Your task to perform on an android device: Open the map Image 0: 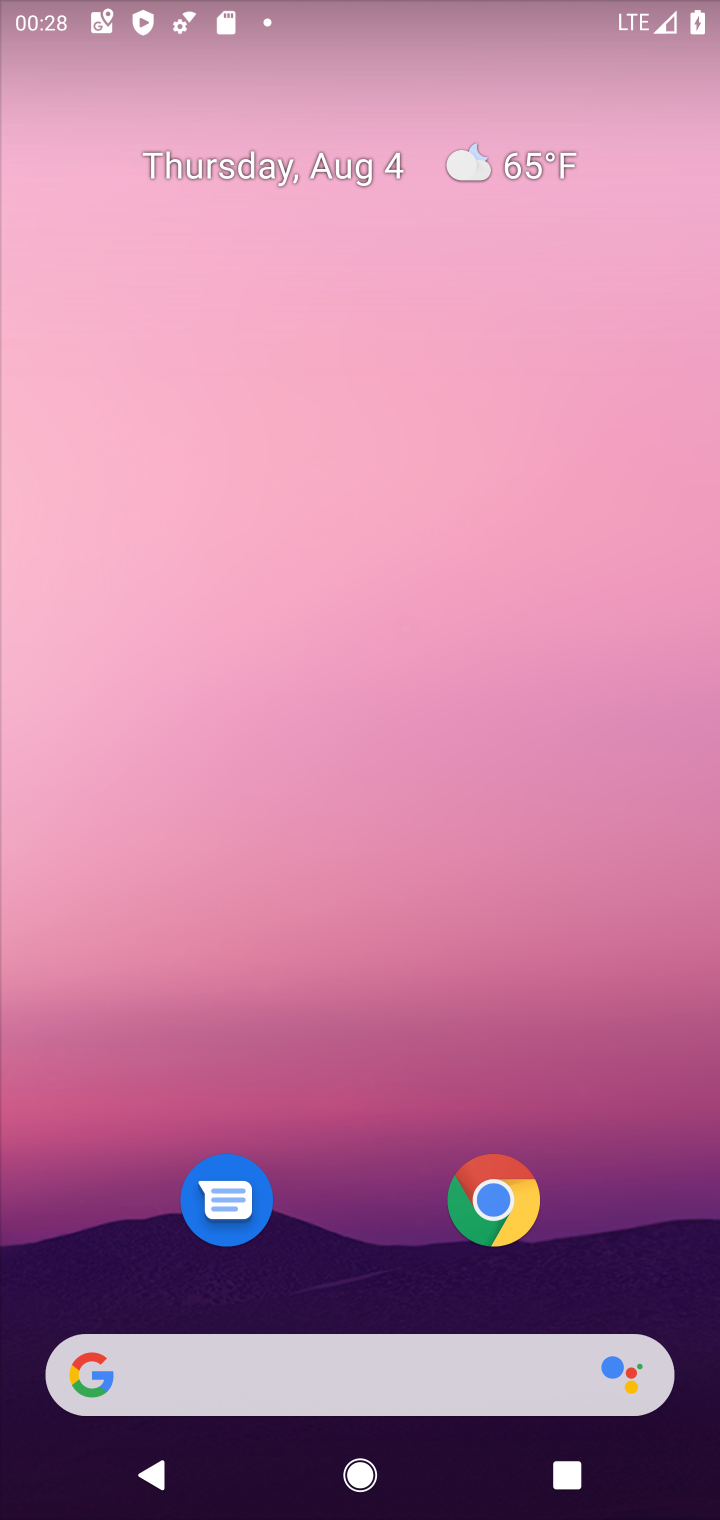
Step 0: press home button
Your task to perform on an android device: Open the map Image 1: 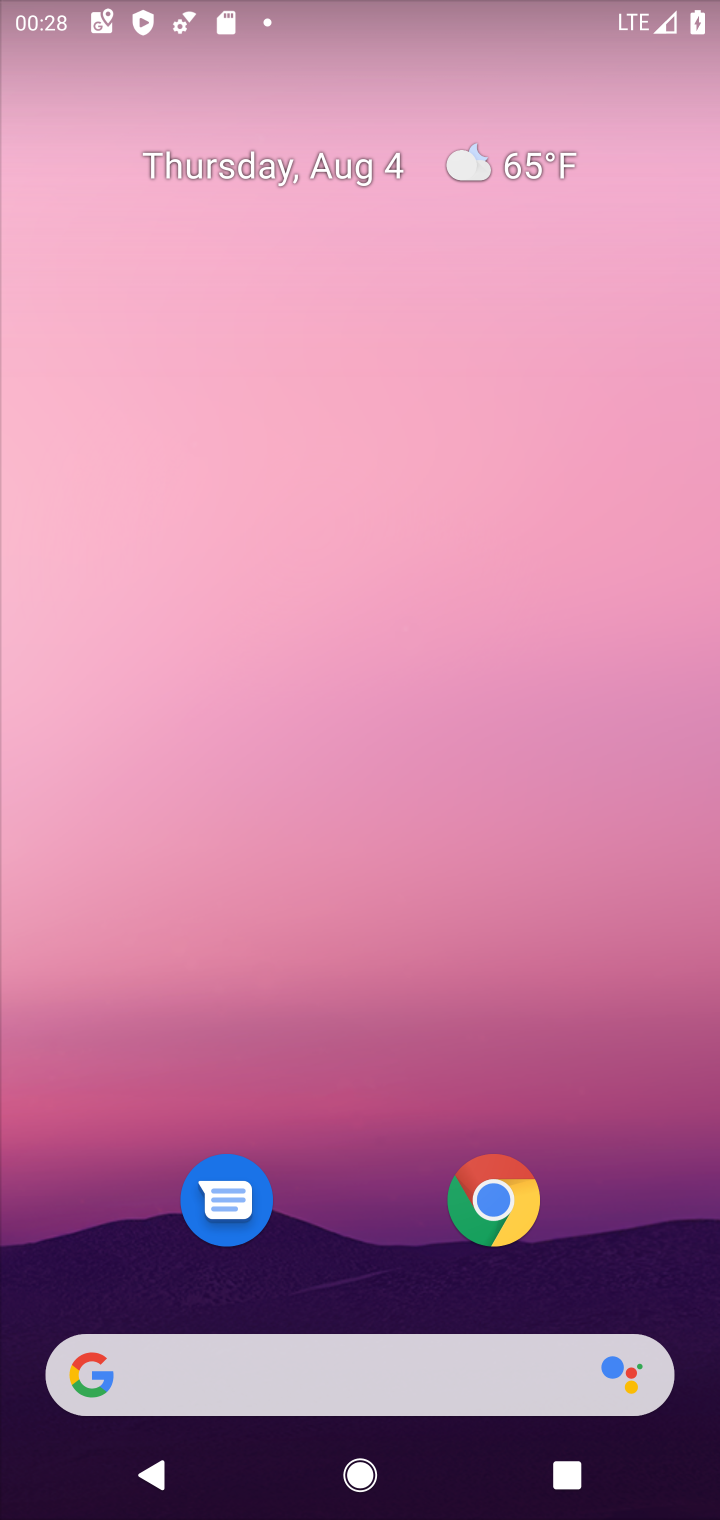
Step 1: click (467, 1234)
Your task to perform on an android device: Open the map Image 2: 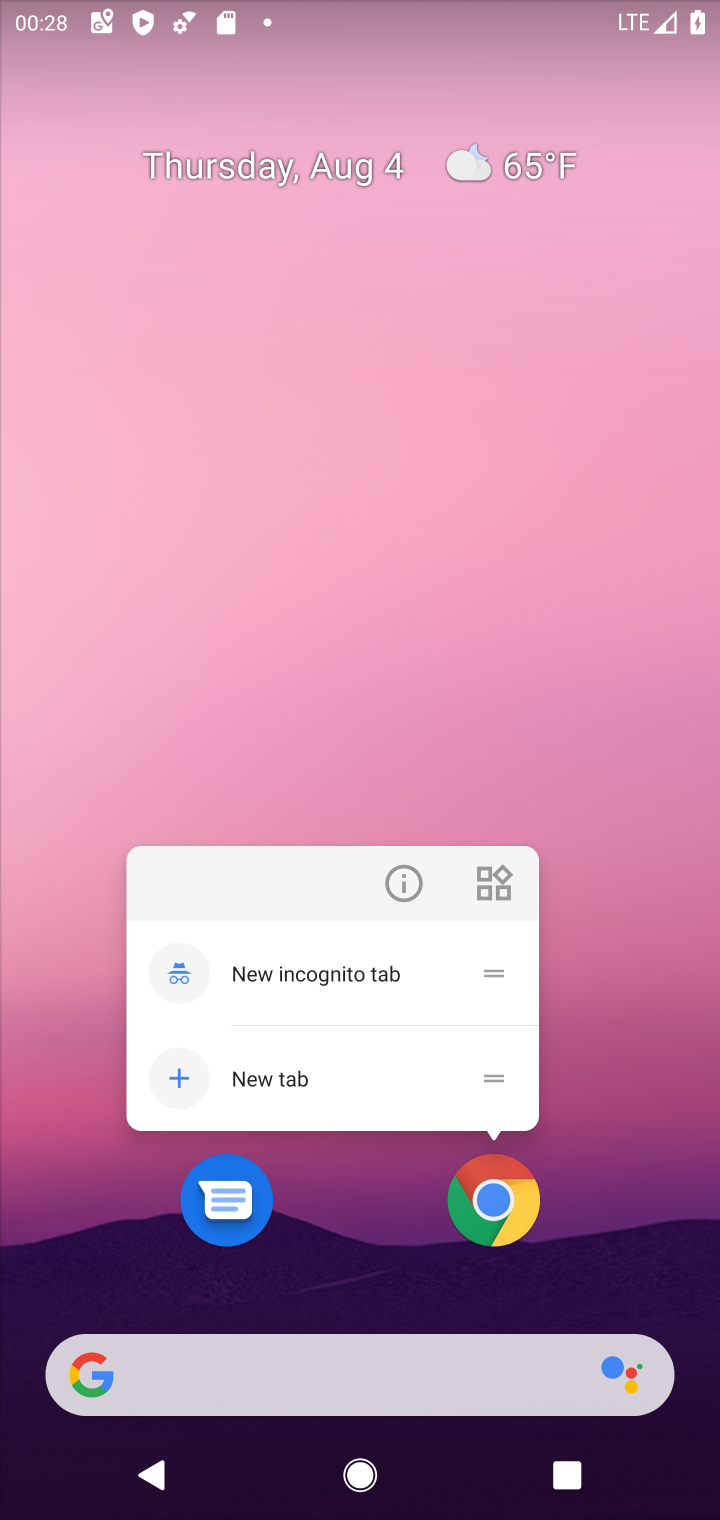
Step 2: press home button
Your task to perform on an android device: Open the map Image 3: 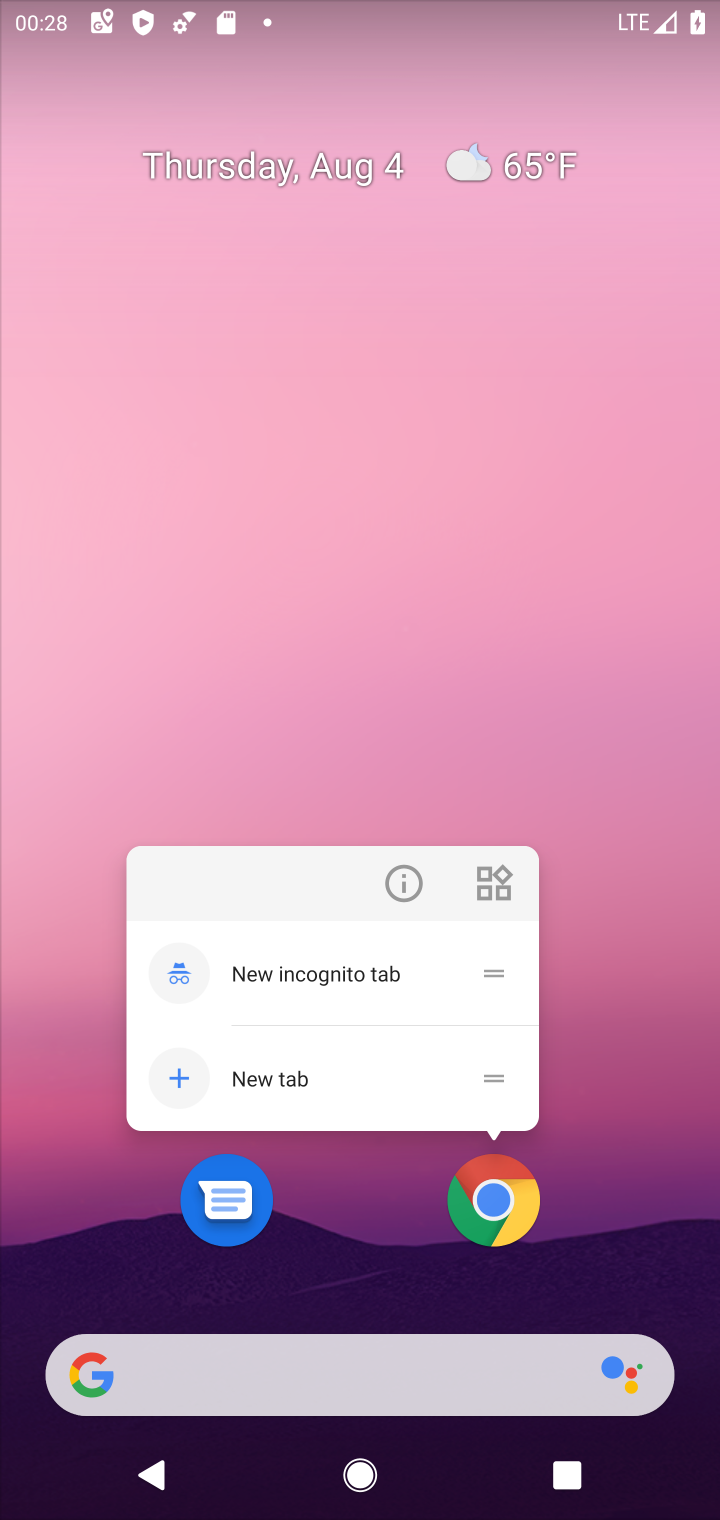
Step 3: press home button
Your task to perform on an android device: Open the map Image 4: 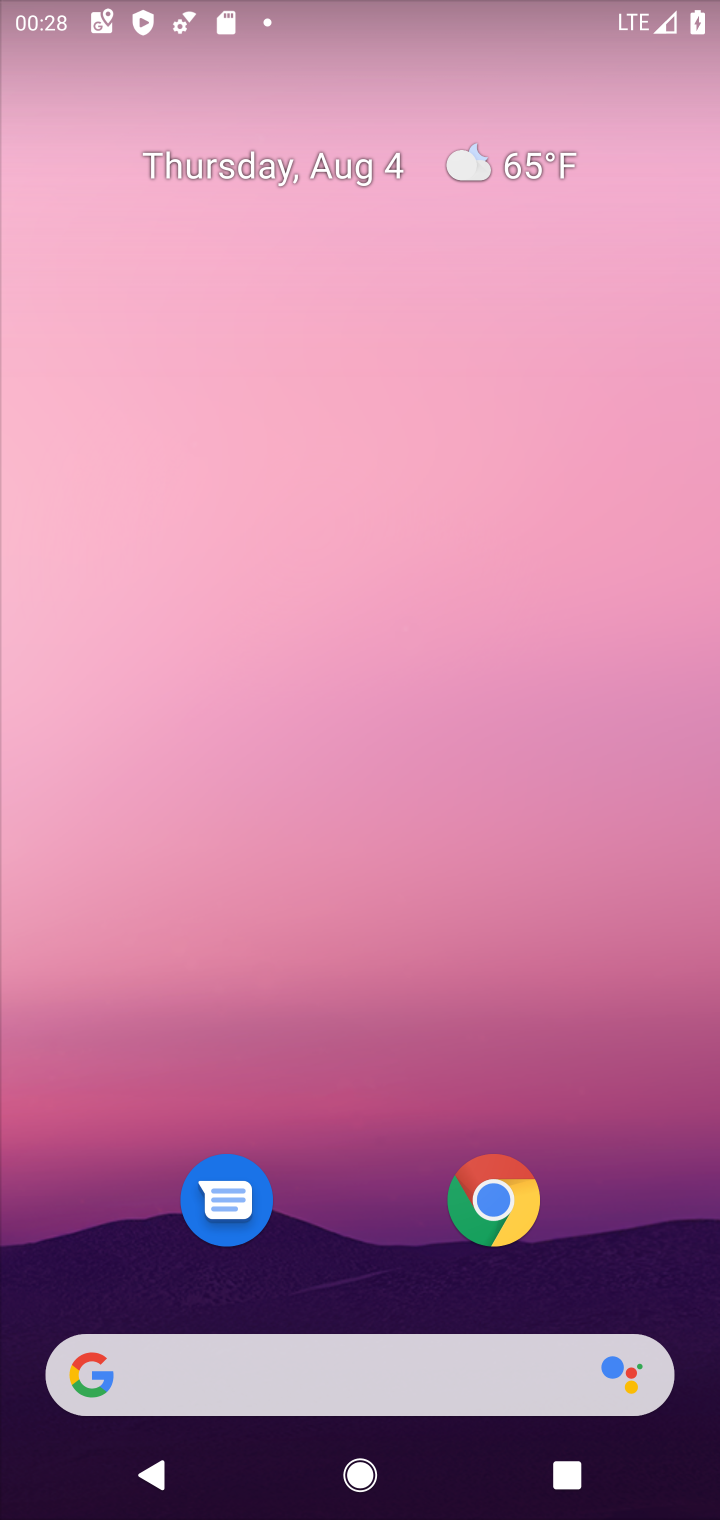
Step 4: drag from (534, 945) to (460, 89)
Your task to perform on an android device: Open the map Image 5: 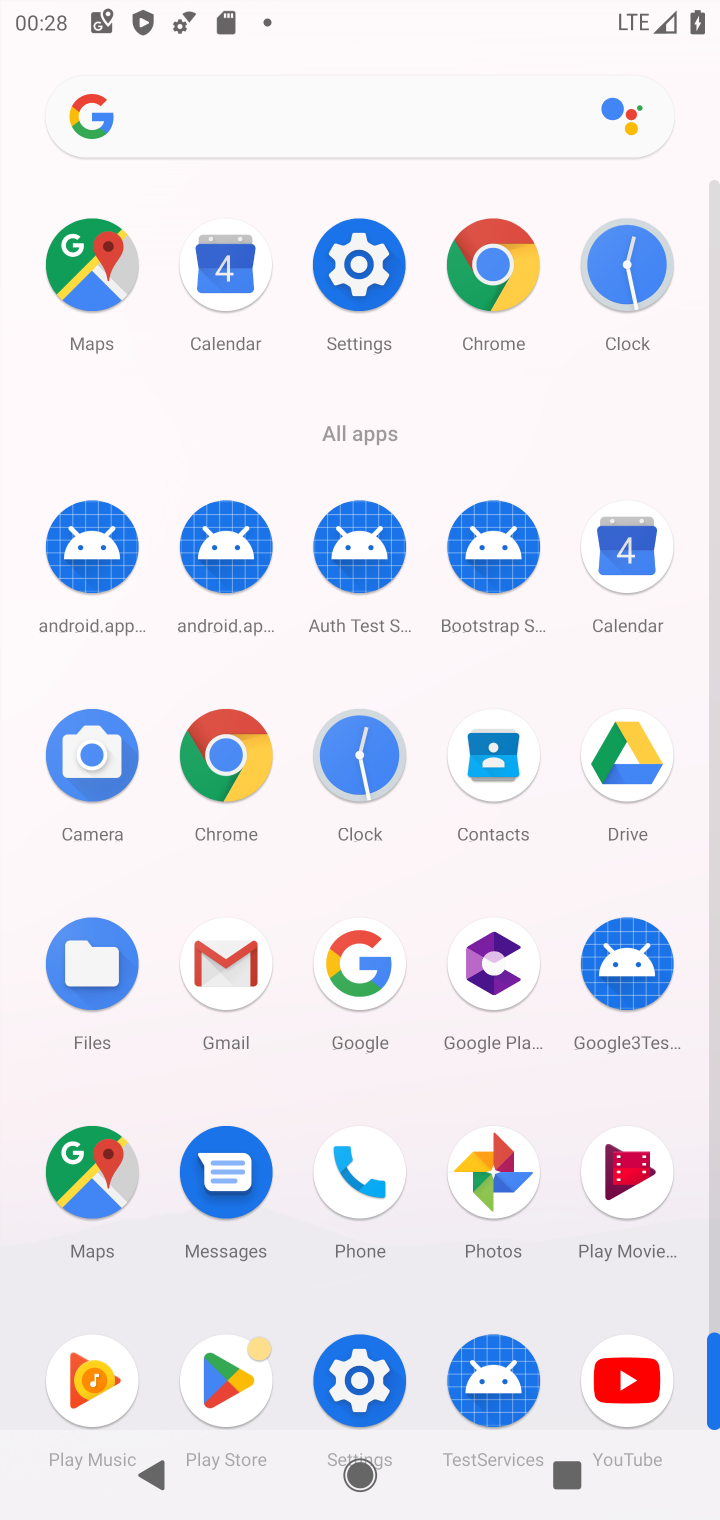
Step 5: click (51, 1206)
Your task to perform on an android device: Open the map Image 6: 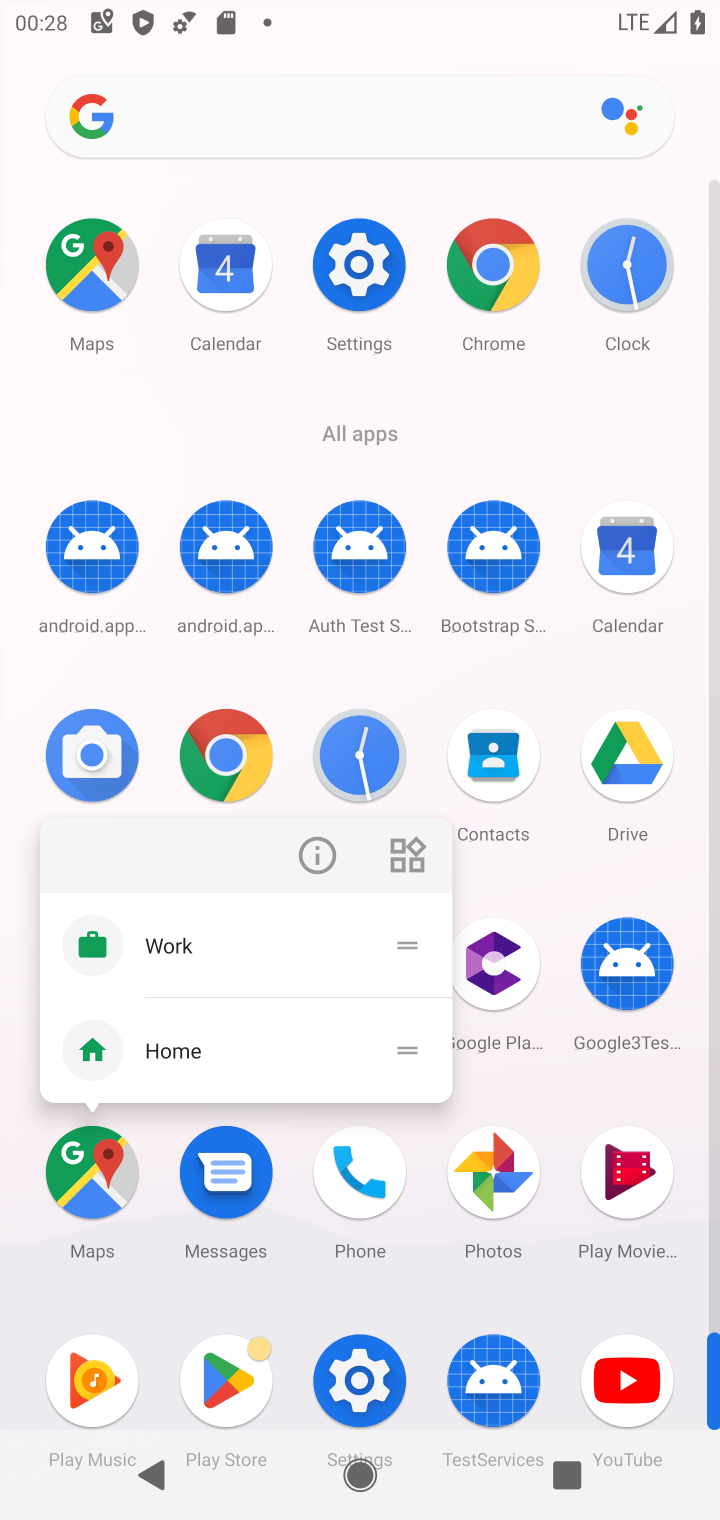
Step 6: click (60, 1209)
Your task to perform on an android device: Open the map Image 7: 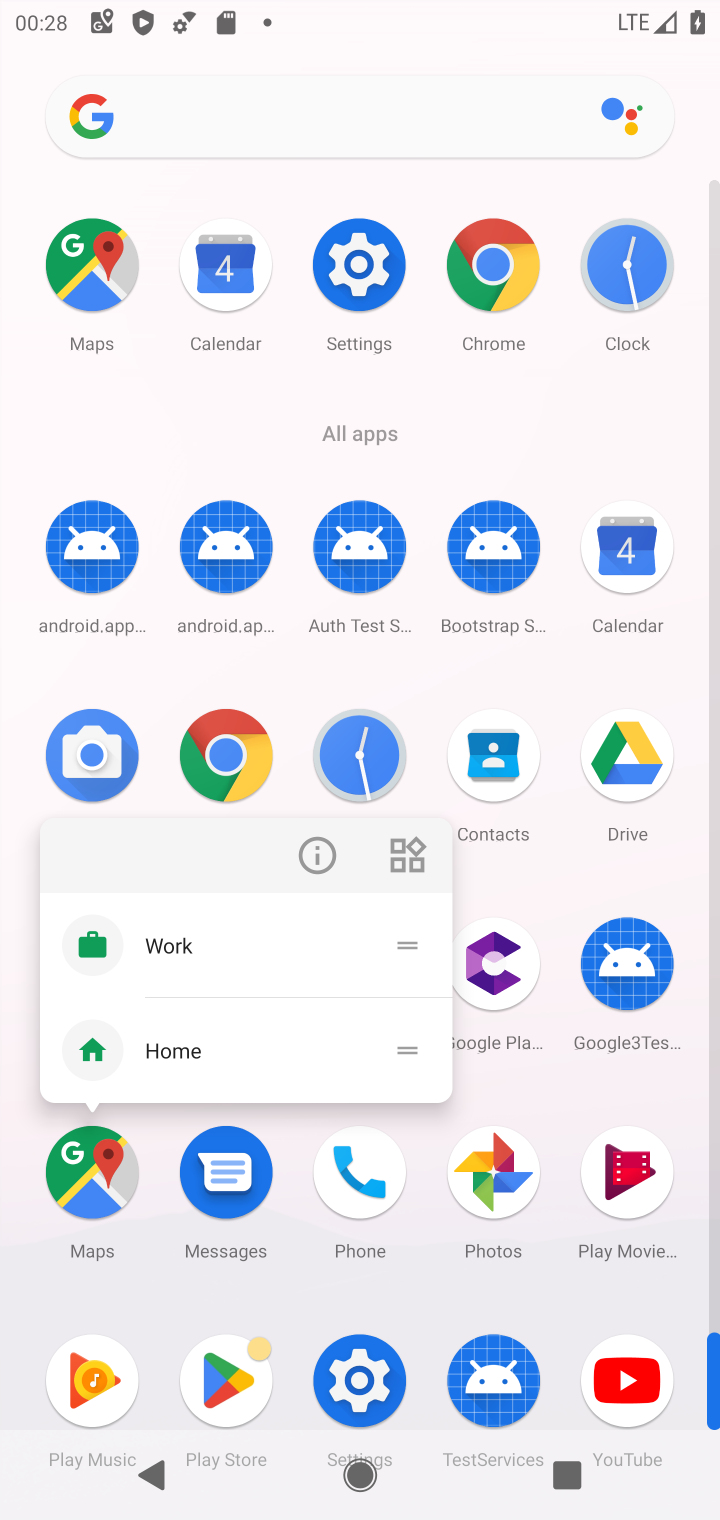
Step 7: click (60, 1209)
Your task to perform on an android device: Open the map Image 8: 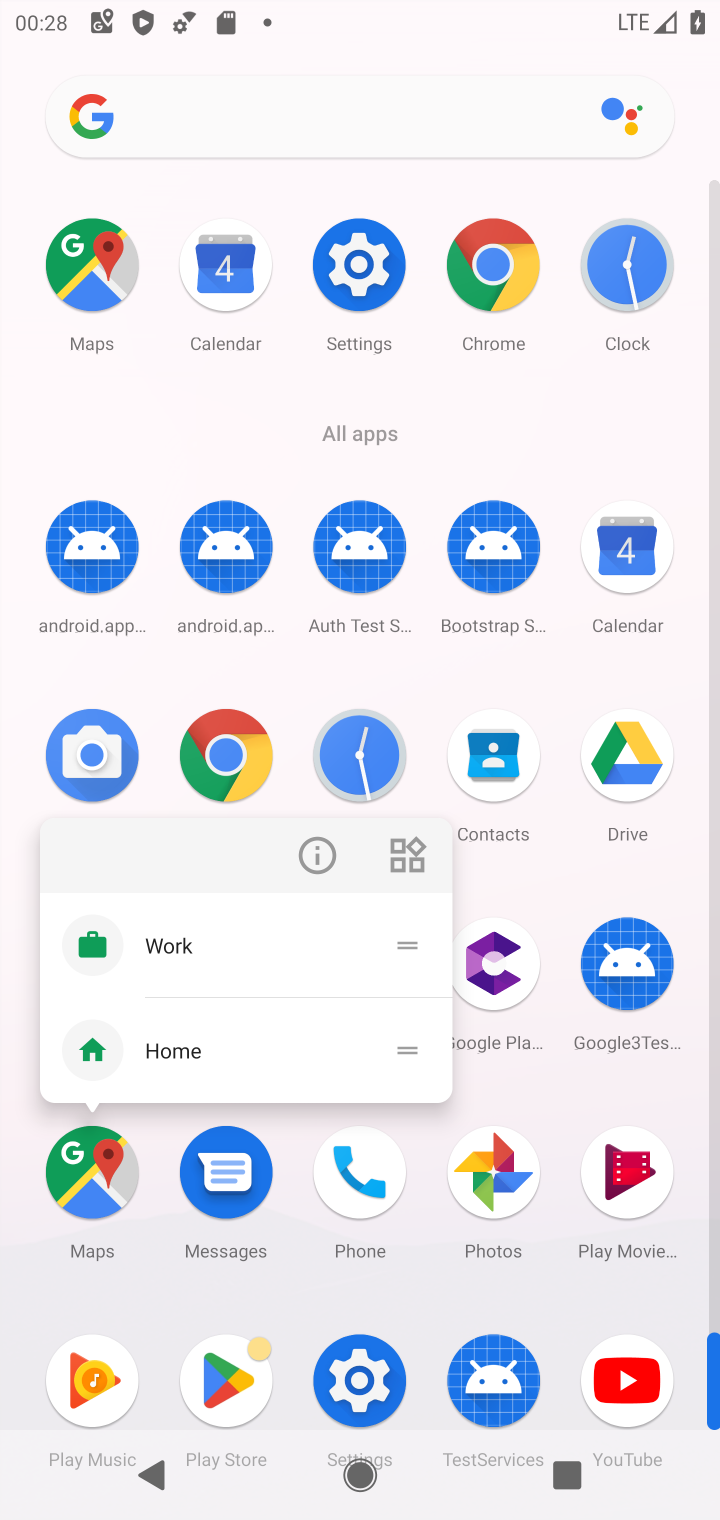
Step 8: click (60, 1209)
Your task to perform on an android device: Open the map Image 9: 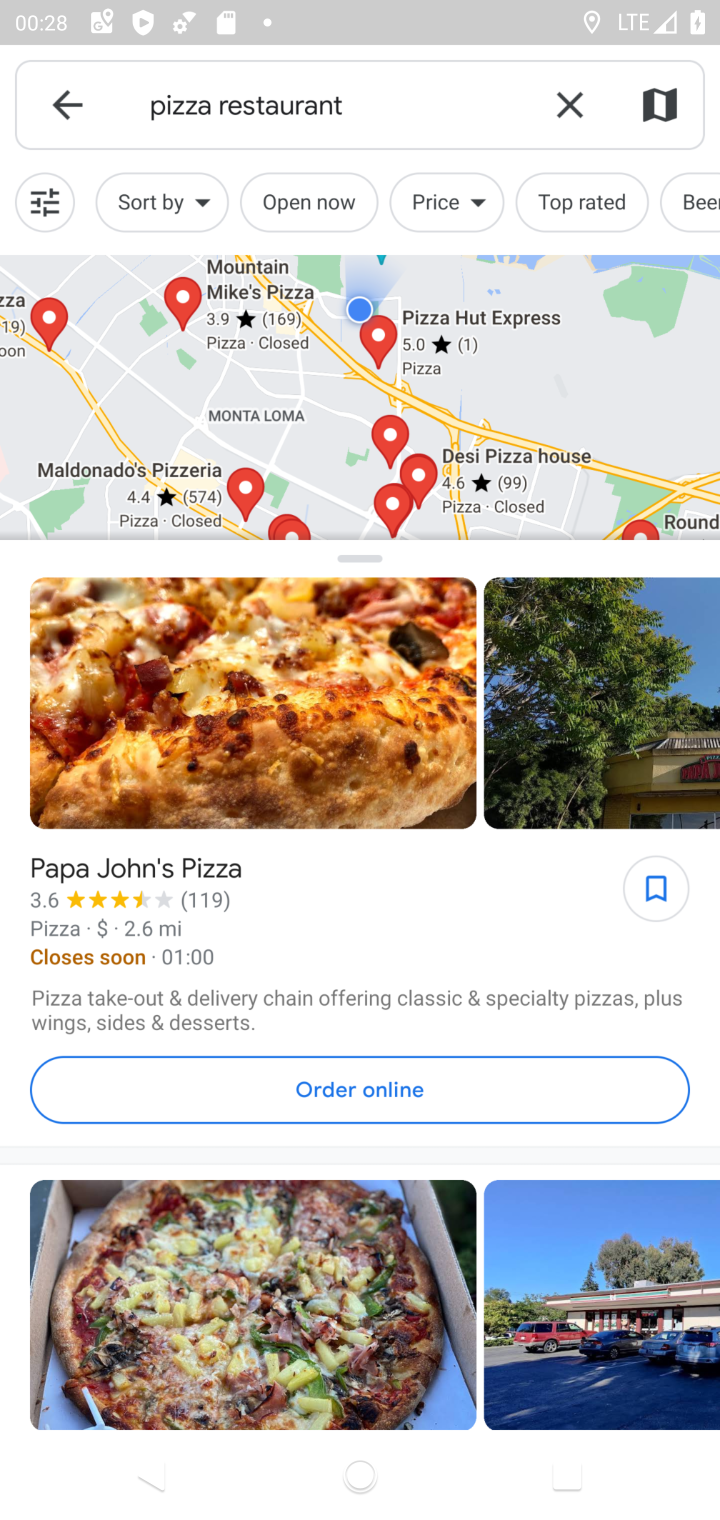
Step 9: task complete